Your task to perform on an android device: change the clock display to analog Image 0: 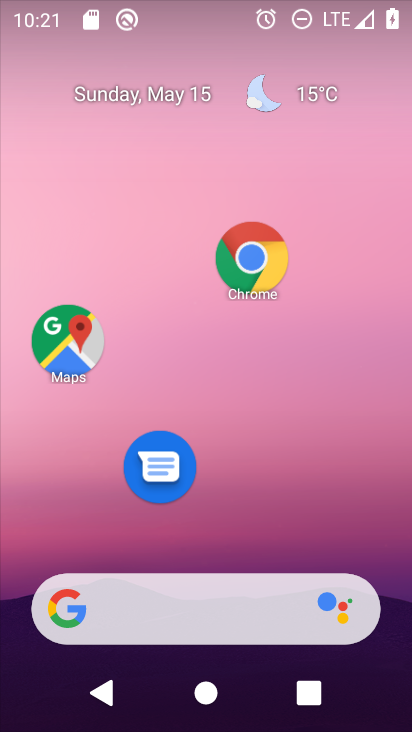
Step 0: drag from (209, 483) to (226, 105)
Your task to perform on an android device: change the clock display to analog Image 1: 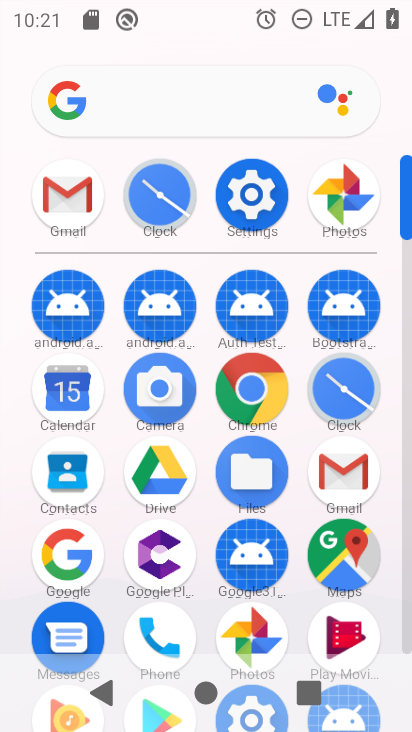
Step 1: click (327, 388)
Your task to perform on an android device: change the clock display to analog Image 2: 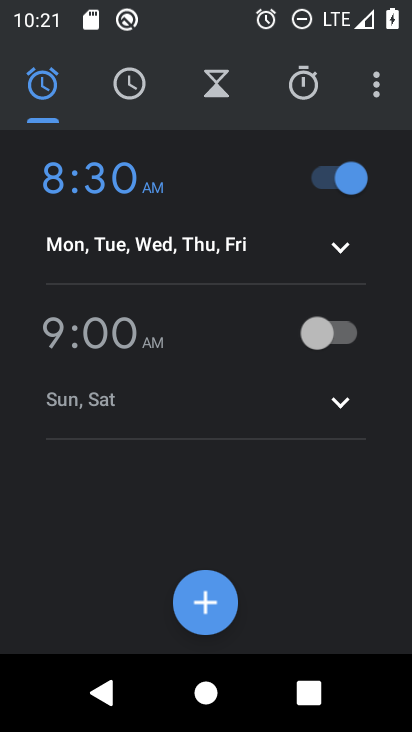
Step 2: click (390, 74)
Your task to perform on an android device: change the clock display to analog Image 3: 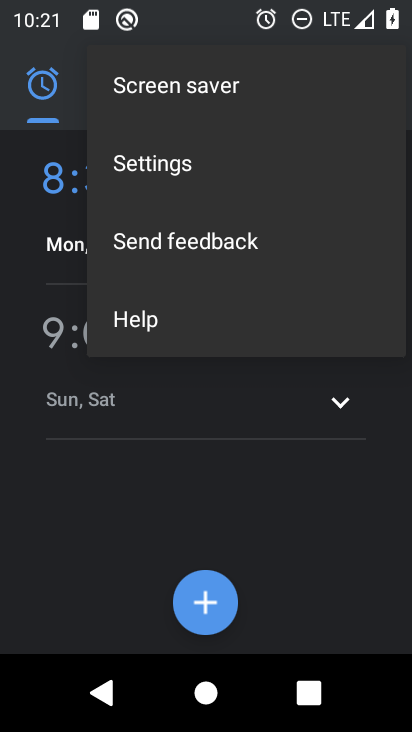
Step 3: click (144, 184)
Your task to perform on an android device: change the clock display to analog Image 4: 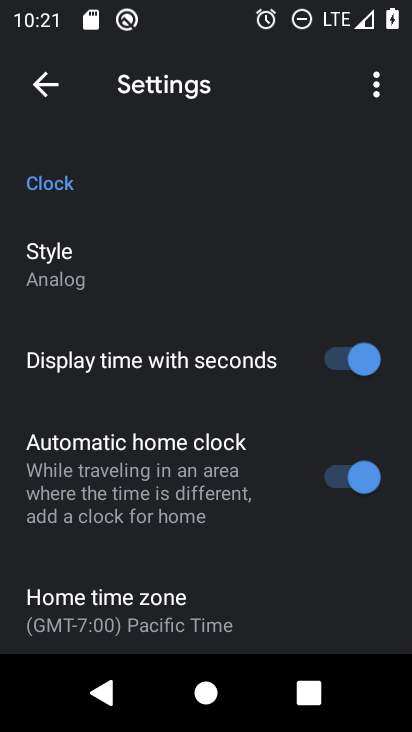
Step 4: click (143, 266)
Your task to perform on an android device: change the clock display to analog Image 5: 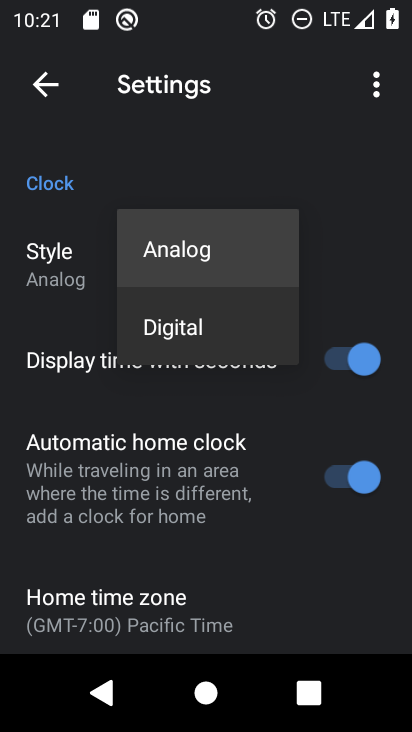
Step 5: task complete